Your task to perform on an android device: View the shopping cart on ebay. Search for "apple airpods" on ebay, select the first entry, add it to the cart, then select checkout. Image 0: 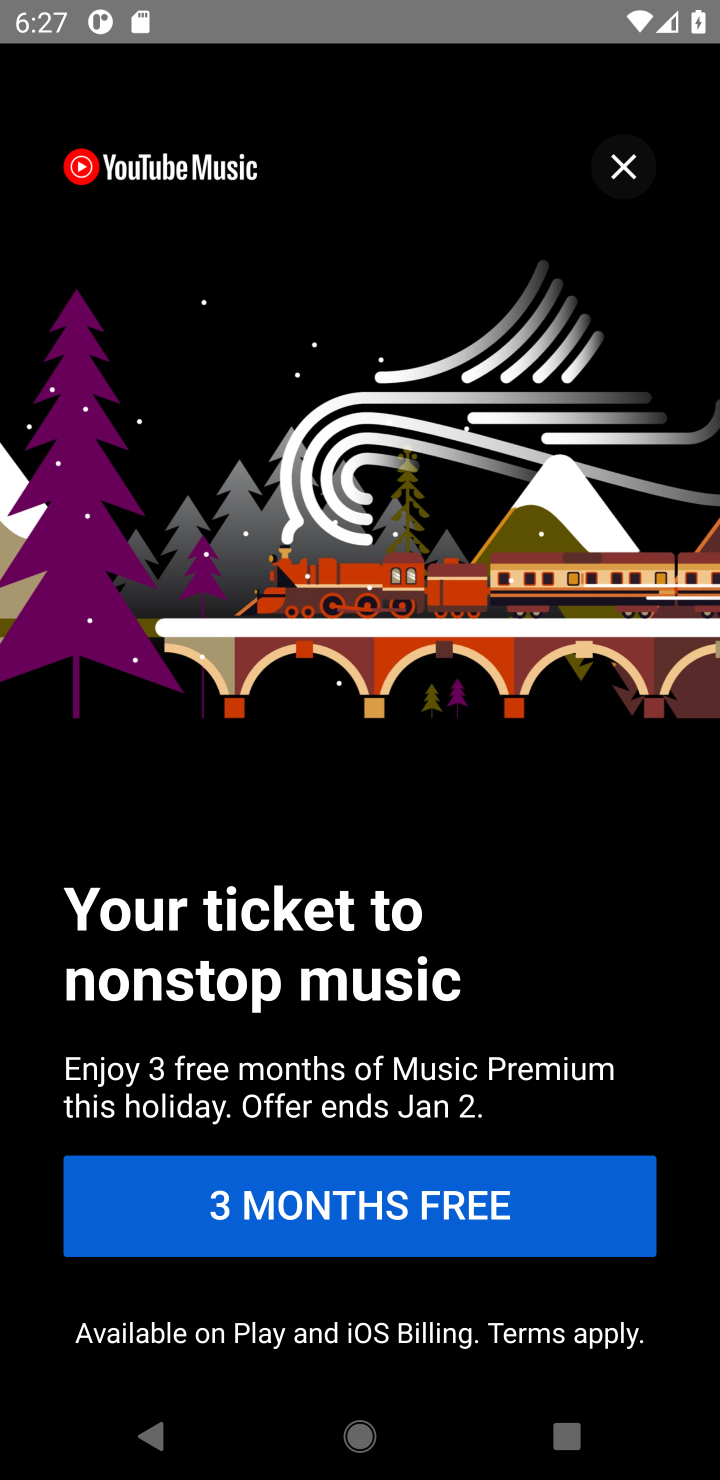
Step 0: press home button
Your task to perform on an android device: View the shopping cart on ebay. Search for "apple airpods" on ebay, select the first entry, add it to the cart, then select checkout. Image 1: 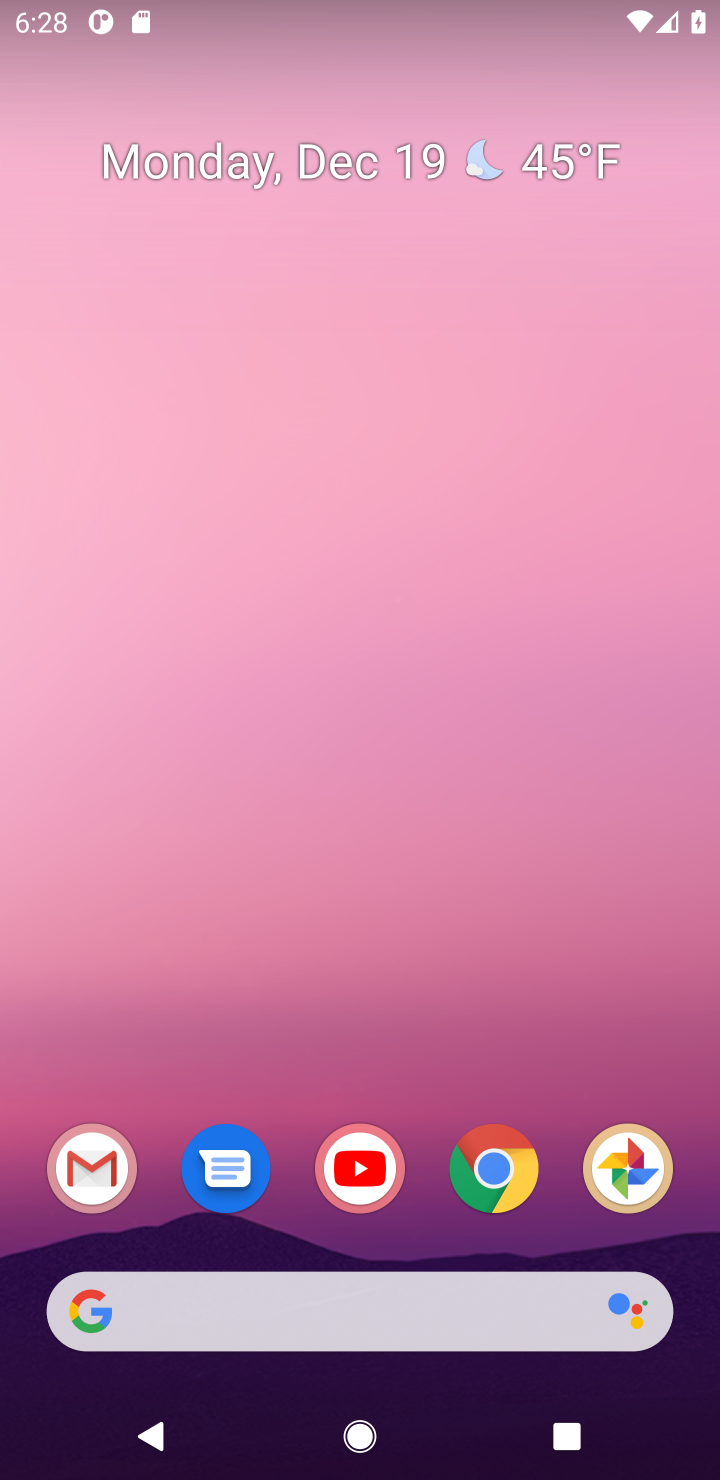
Step 1: click (492, 1178)
Your task to perform on an android device: View the shopping cart on ebay. Search for "apple airpods" on ebay, select the first entry, add it to the cart, then select checkout. Image 2: 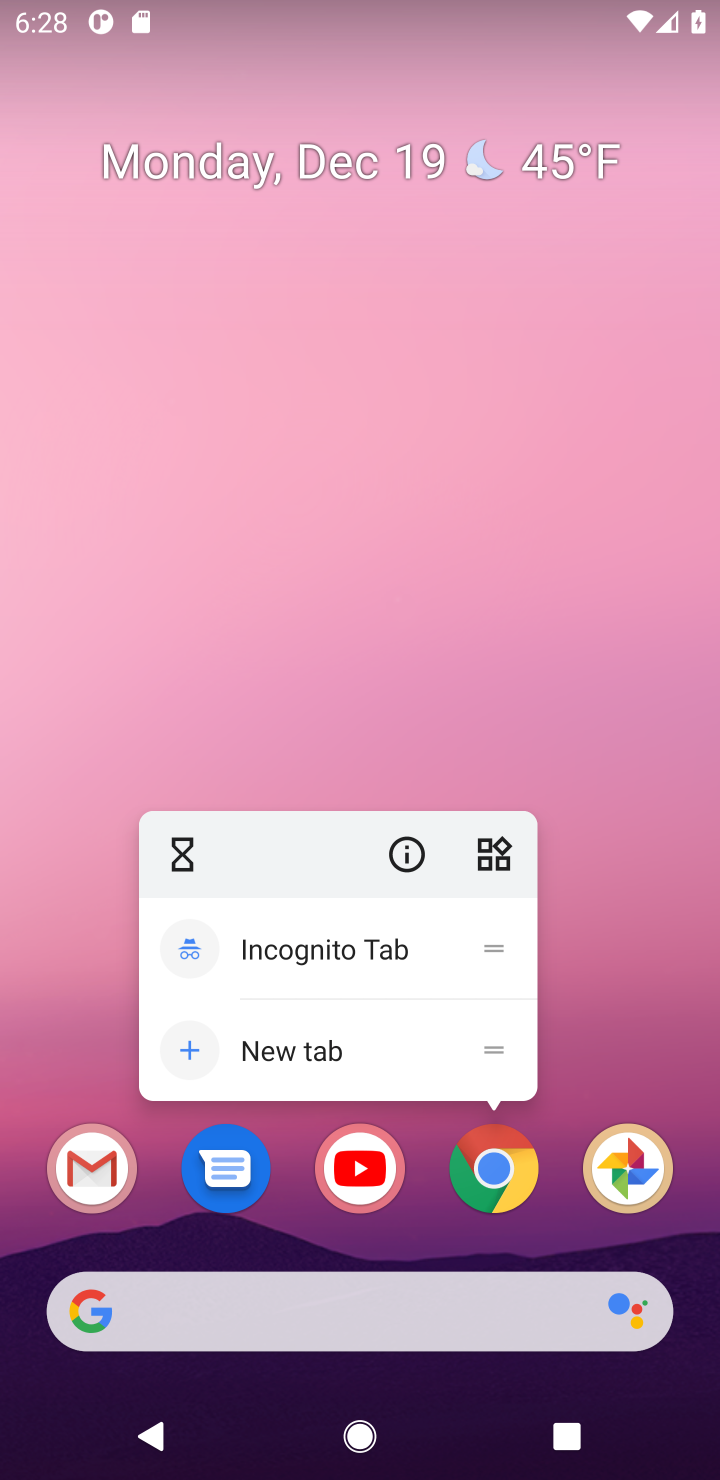
Step 2: click (492, 1178)
Your task to perform on an android device: View the shopping cart on ebay. Search for "apple airpods" on ebay, select the first entry, add it to the cart, then select checkout. Image 3: 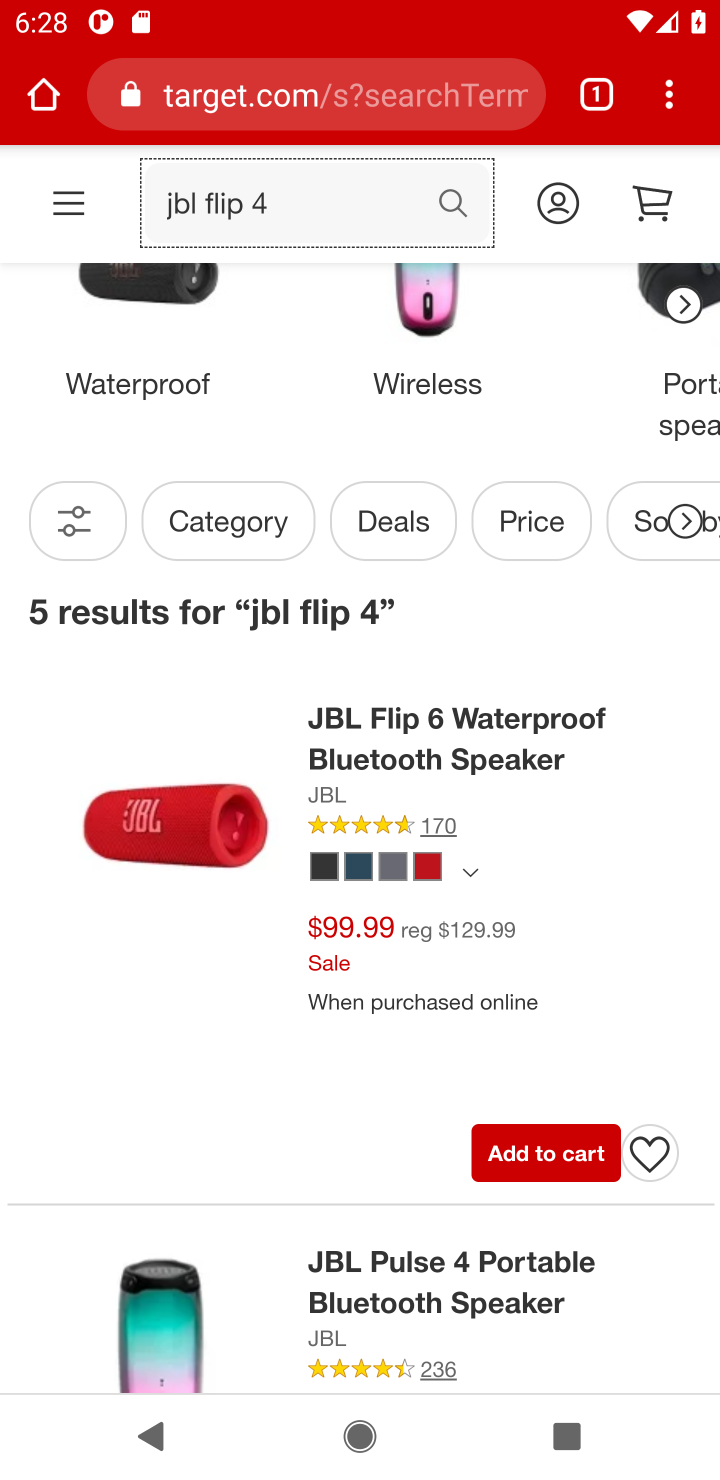
Step 3: click (240, 101)
Your task to perform on an android device: View the shopping cart on ebay. Search for "apple airpods" on ebay, select the first entry, add it to the cart, then select checkout. Image 4: 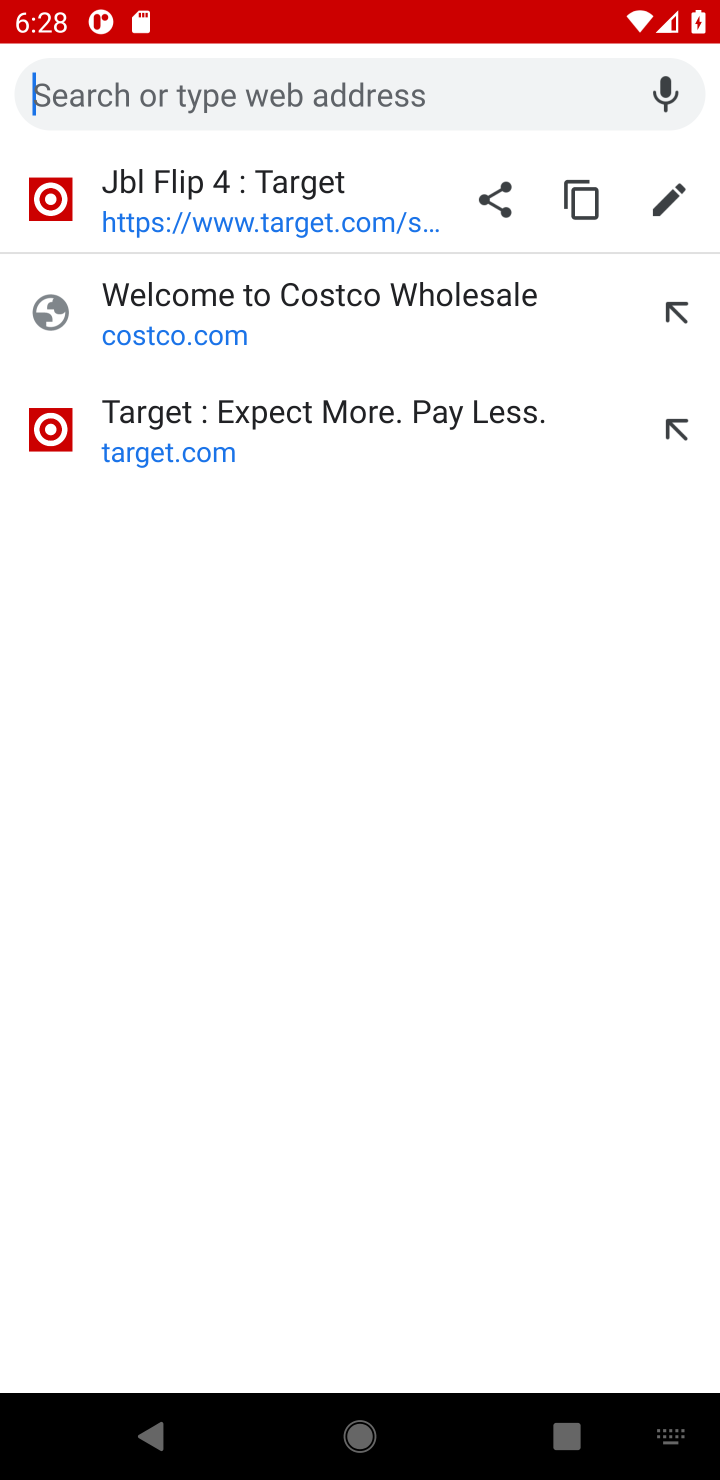
Step 4: type "ebay.com"
Your task to perform on an android device: View the shopping cart on ebay. Search for "apple airpods" on ebay, select the first entry, add it to the cart, then select checkout. Image 5: 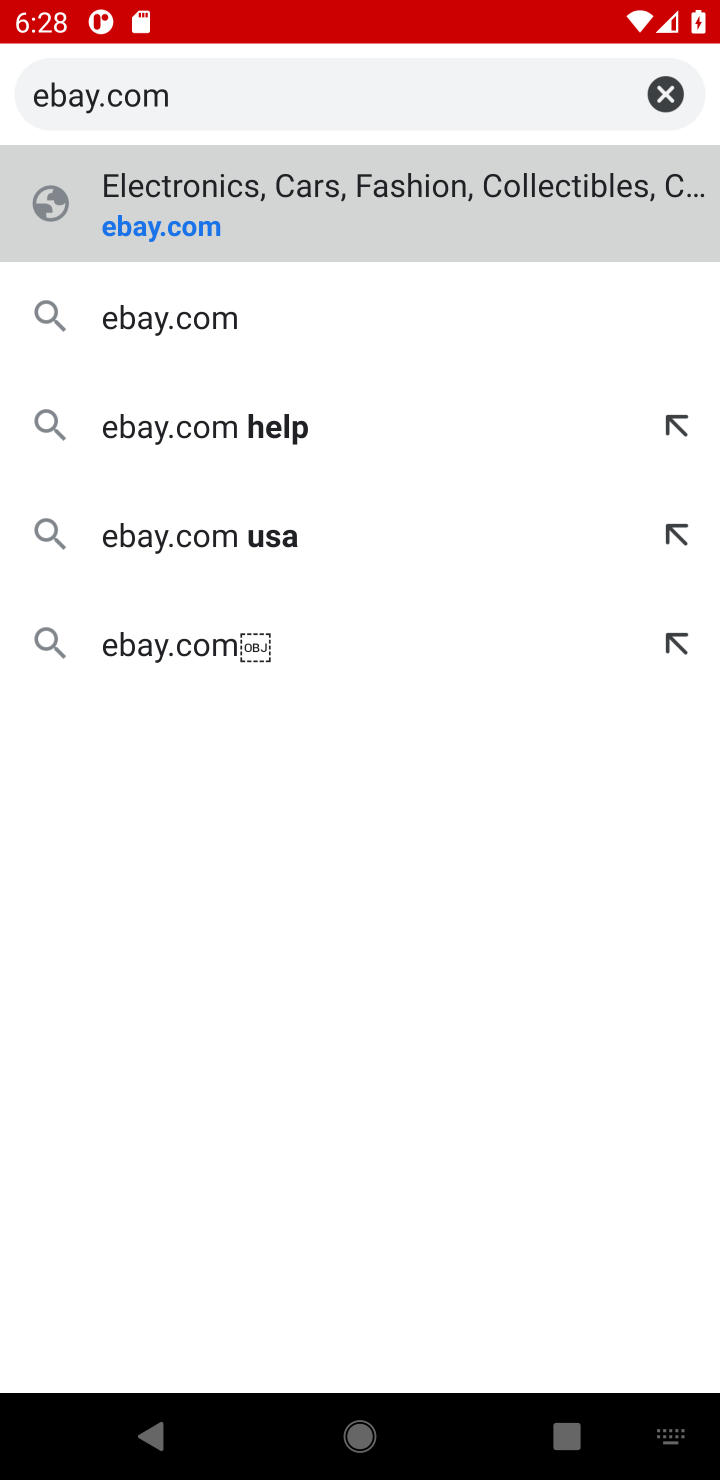
Step 5: click (149, 244)
Your task to perform on an android device: View the shopping cart on ebay. Search for "apple airpods" on ebay, select the first entry, add it to the cart, then select checkout. Image 6: 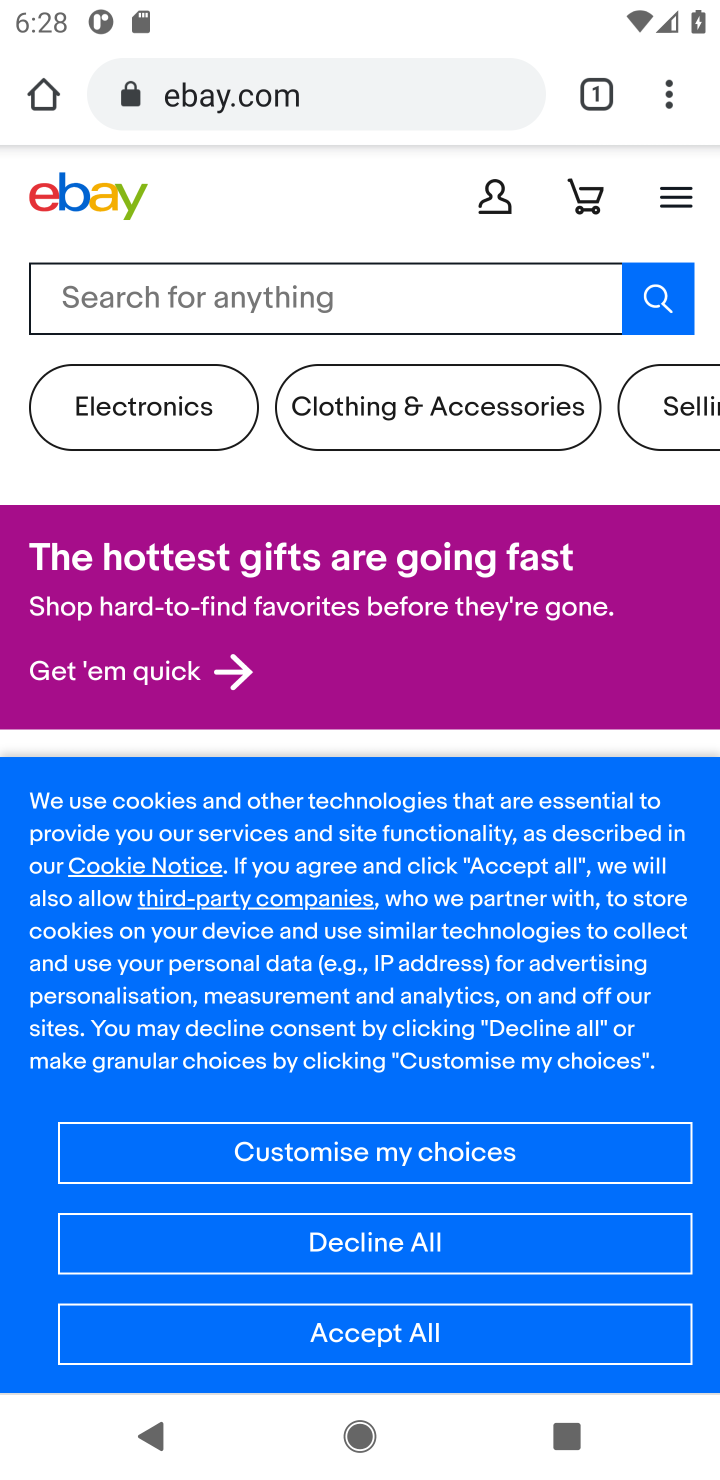
Step 6: click (589, 206)
Your task to perform on an android device: View the shopping cart on ebay. Search for "apple airpods" on ebay, select the first entry, add it to the cart, then select checkout. Image 7: 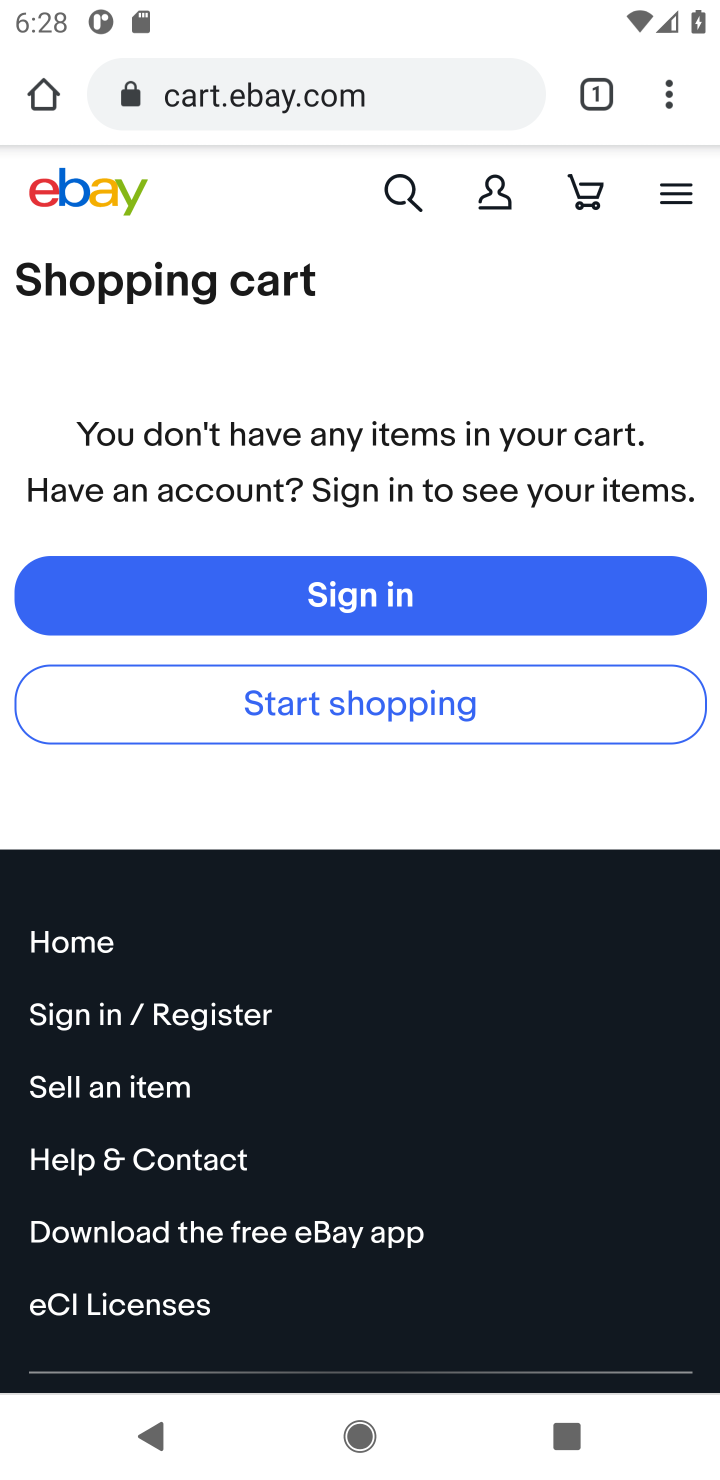
Step 7: click (394, 191)
Your task to perform on an android device: View the shopping cart on ebay. Search for "apple airpods" on ebay, select the first entry, add it to the cart, then select checkout. Image 8: 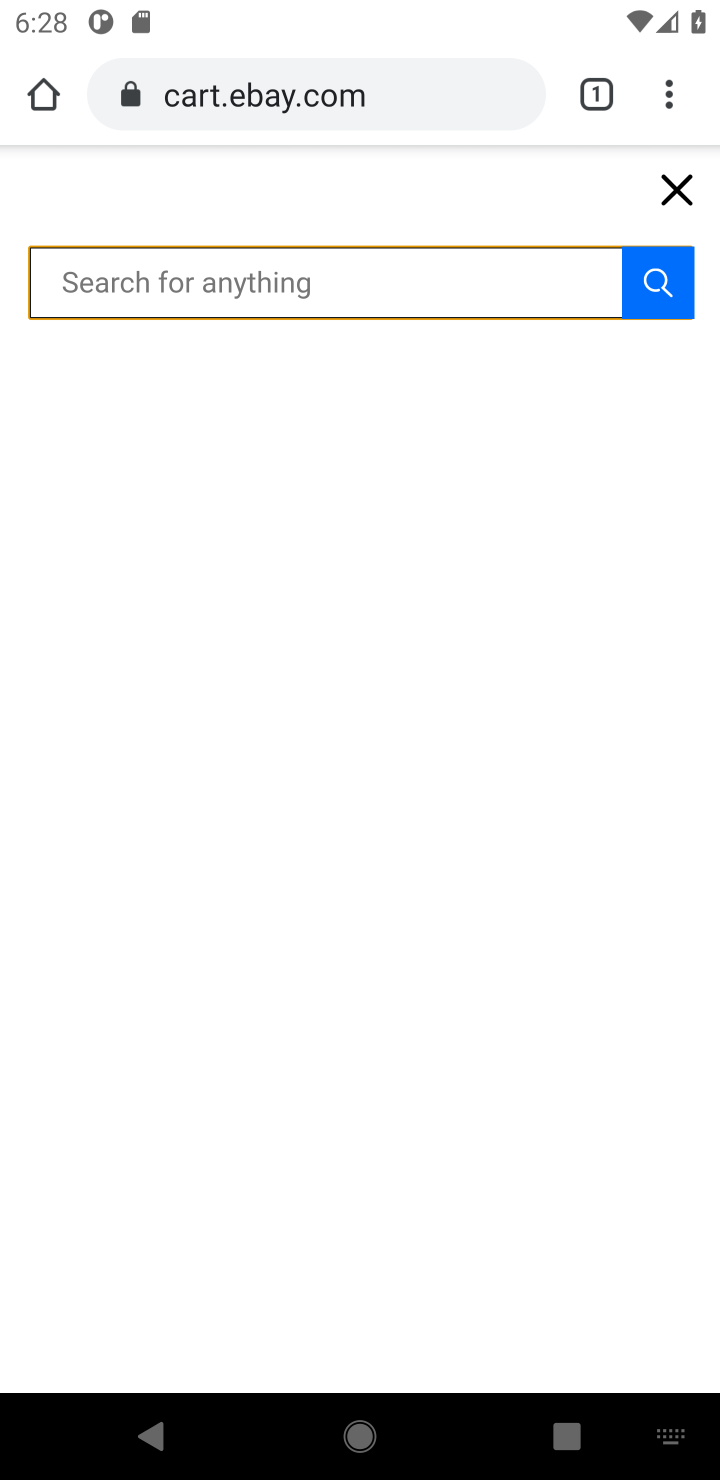
Step 8: type "apple airpods"
Your task to perform on an android device: View the shopping cart on ebay. Search for "apple airpods" on ebay, select the first entry, add it to the cart, then select checkout. Image 9: 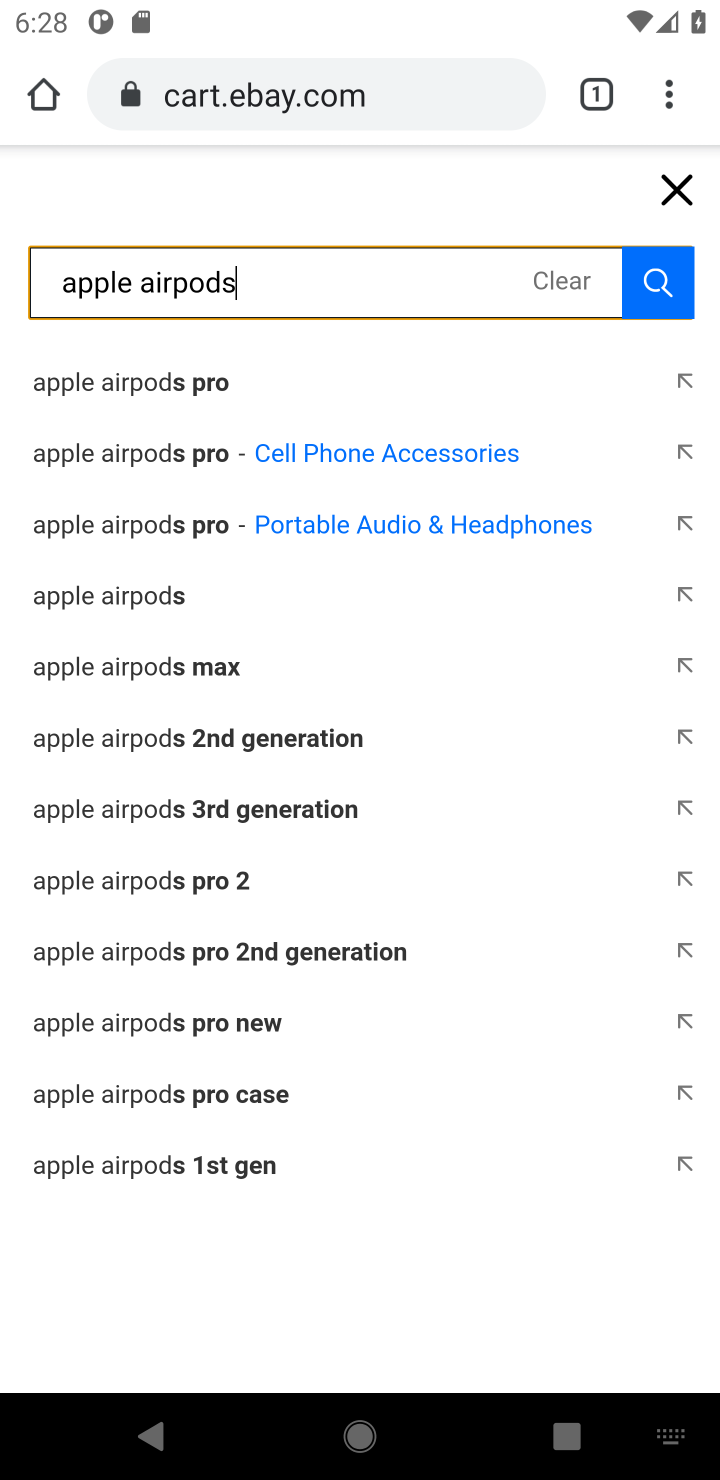
Step 9: click (659, 272)
Your task to perform on an android device: View the shopping cart on ebay. Search for "apple airpods" on ebay, select the first entry, add it to the cart, then select checkout. Image 10: 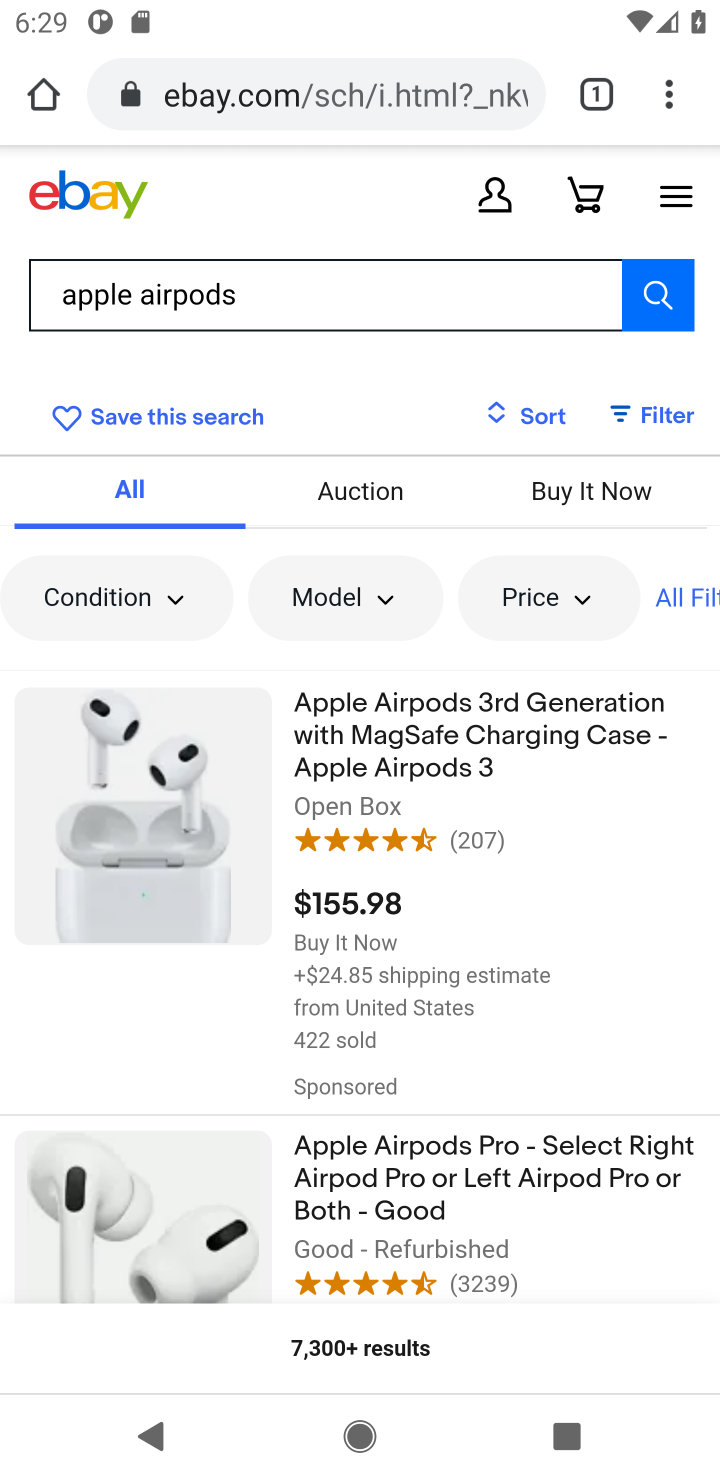
Step 10: click (328, 768)
Your task to perform on an android device: View the shopping cart on ebay. Search for "apple airpods" on ebay, select the first entry, add it to the cart, then select checkout. Image 11: 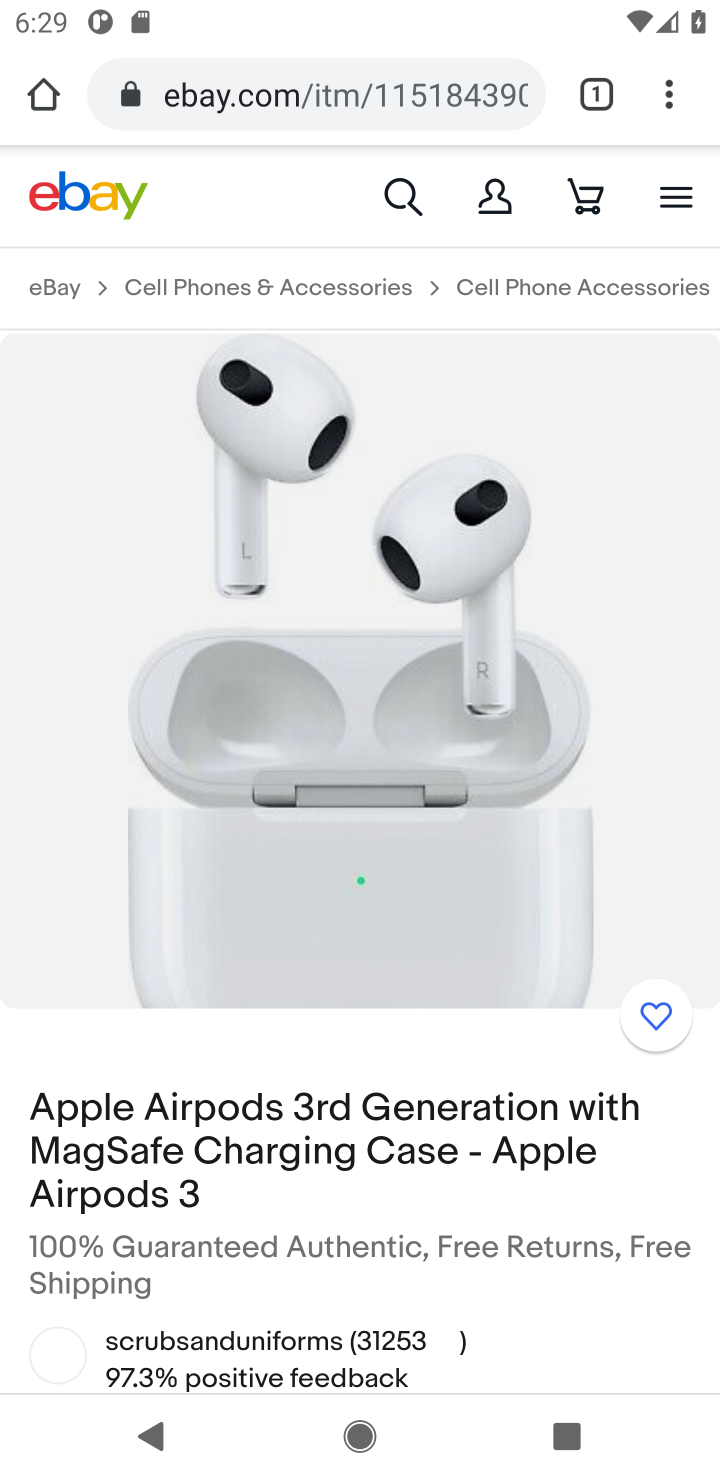
Step 11: drag from (285, 1116) to (279, 464)
Your task to perform on an android device: View the shopping cart on ebay. Search for "apple airpods" on ebay, select the first entry, add it to the cart, then select checkout. Image 12: 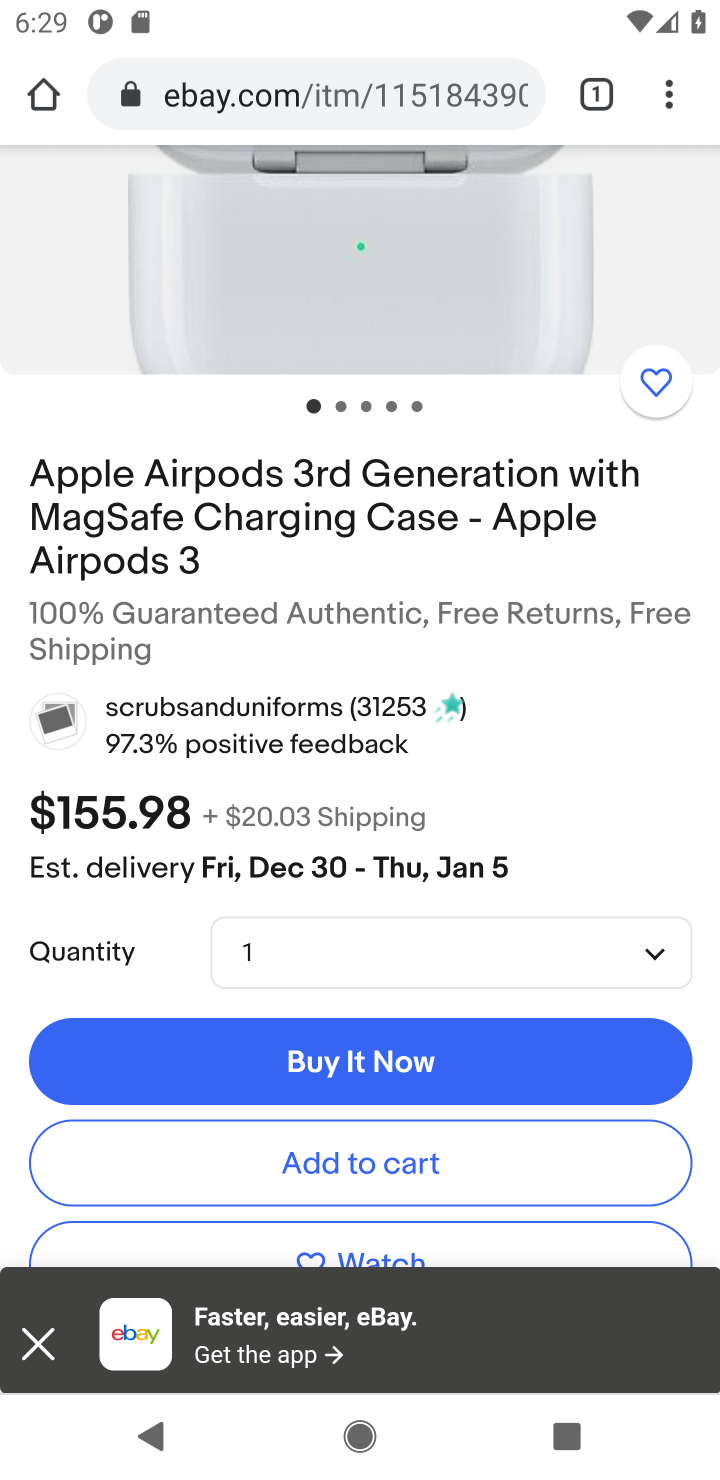
Step 12: click (318, 1160)
Your task to perform on an android device: View the shopping cart on ebay. Search for "apple airpods" on ebay, select the first entry, add it to the cart, then select checkout. Image 13: 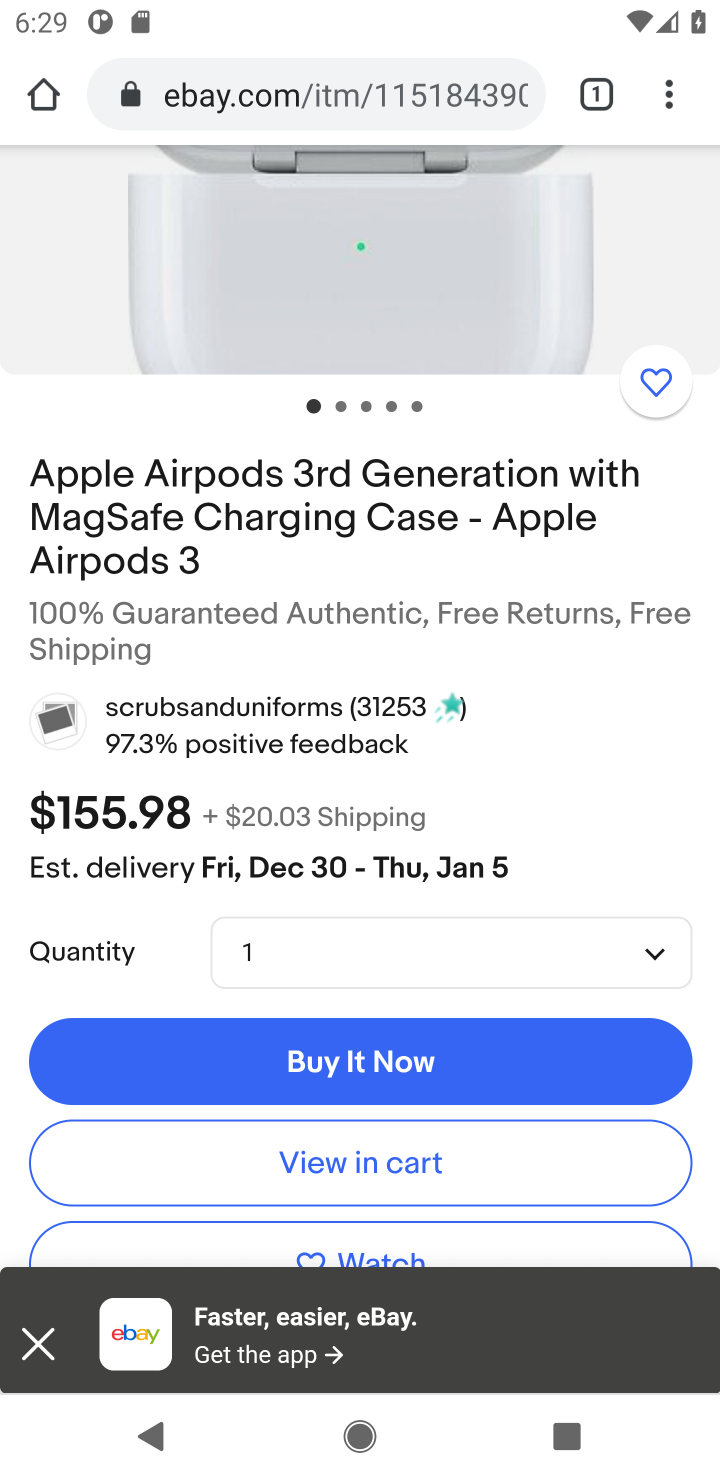
Step 13: click (318, 1160)
Your task to perform on an android device: View the shopping cart on ebay. Search for "apple airpods" on ebay, select the first entry, add it to the cart, then select checkout. Image 14: 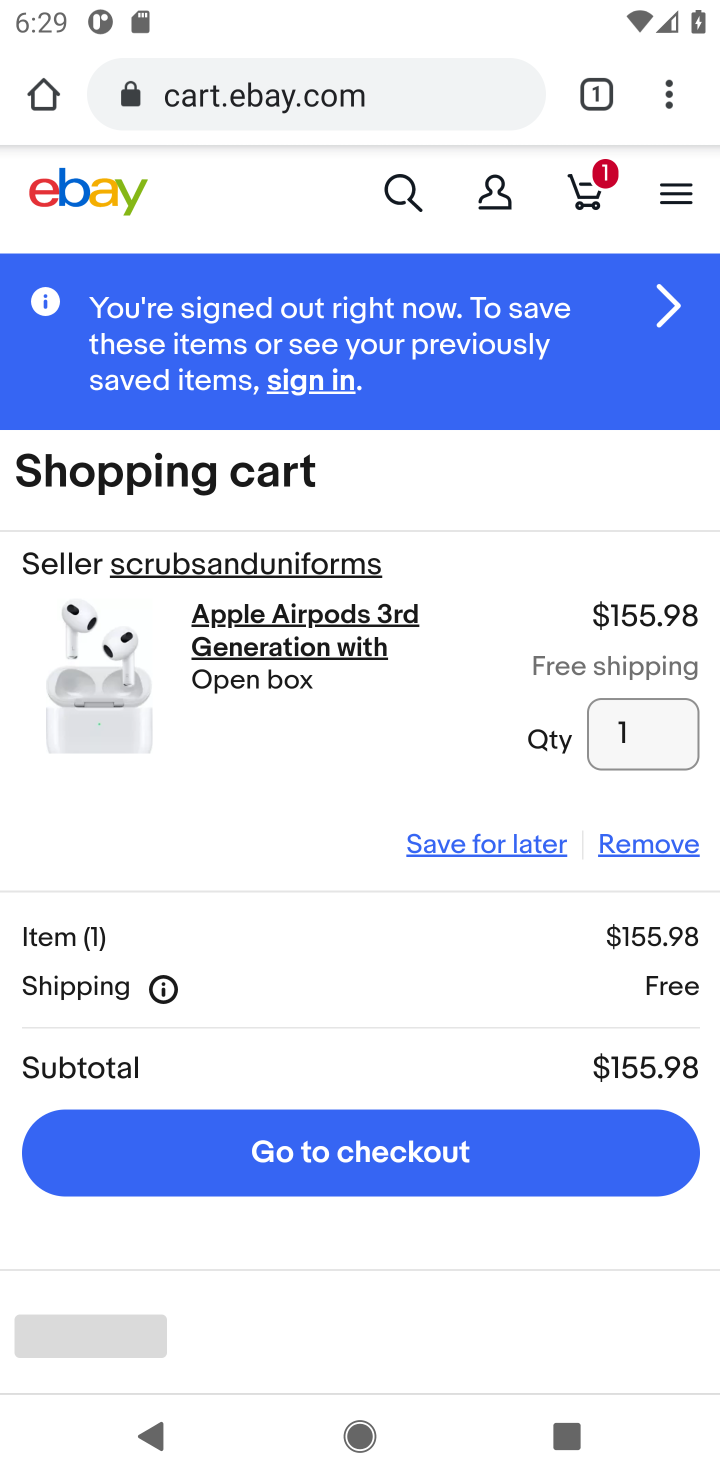
Step 14: click (318, 1160)
Your task to perform on an android device: View the shopping cart on ebay. Search for "apple airpods" on ebay, select the first entry, add it to the cart, then select checkout. Image 15: 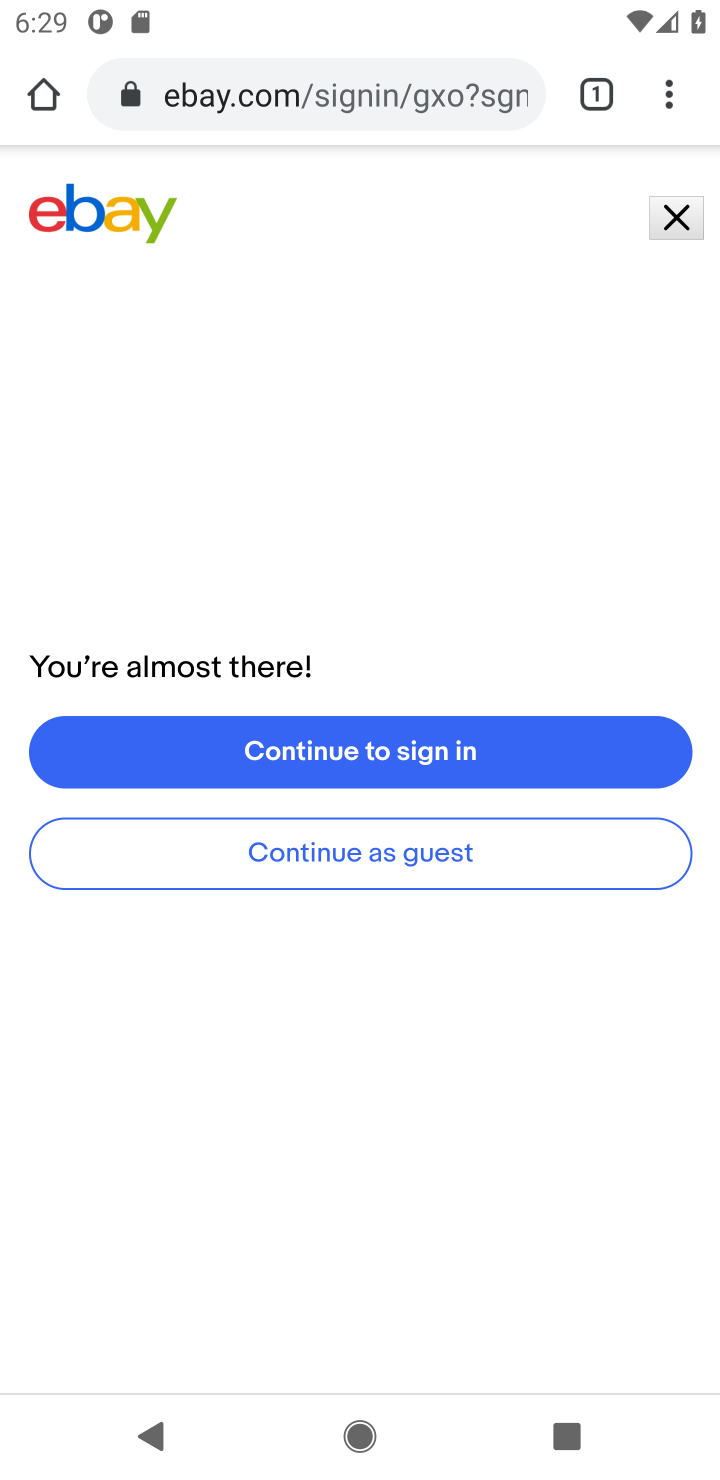
Step 15: task complete